Your task to perform on an android device: open app "TextNow: Call + Text Unlimited" (install if not already installed) and go to login screen Image 0: 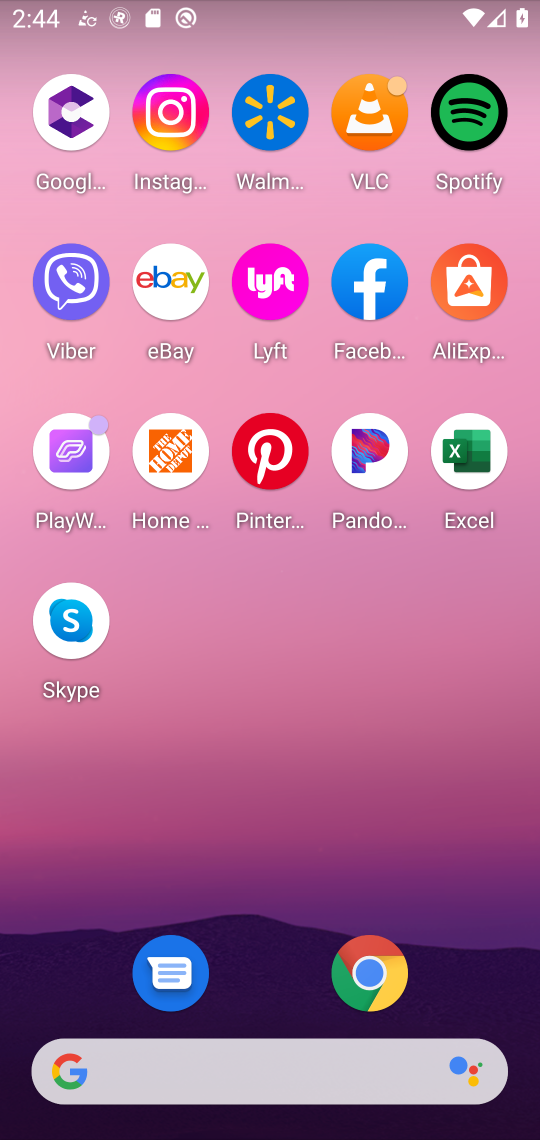
Step 0: press home button
Your task to perform on an android device: open app "TextNow: Call + Text Unlimited" (install if not already installed) and go to login screen Image 1: 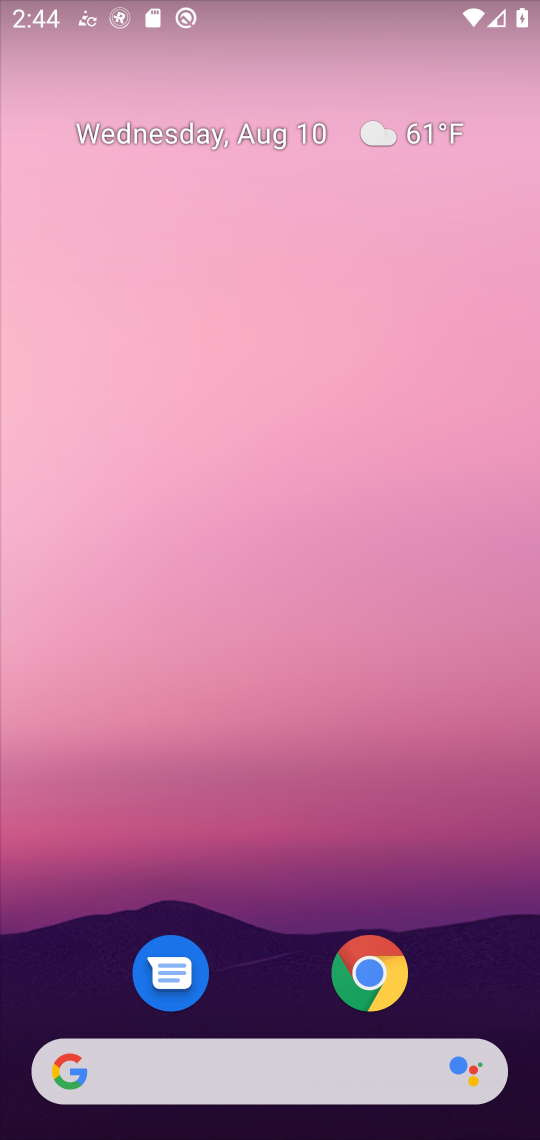
Step 1: drag from (233, 1014) to (243, 458)
Your task to perform on an android device: open app "TextNow: Call + Text Unlimited" (install if not already installed) and go to login screen Image 2: 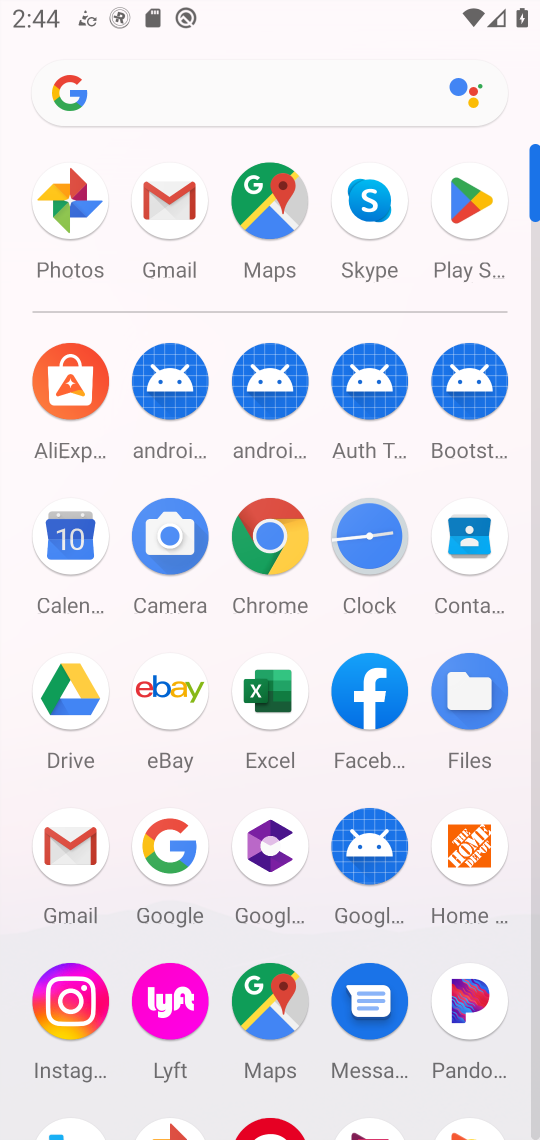
Step 2: click (459, 191)
Your task to perform on an android device: open app "TextNow: Call + Text Unlimited" (install if not already installed) and go to login screen Image 3: 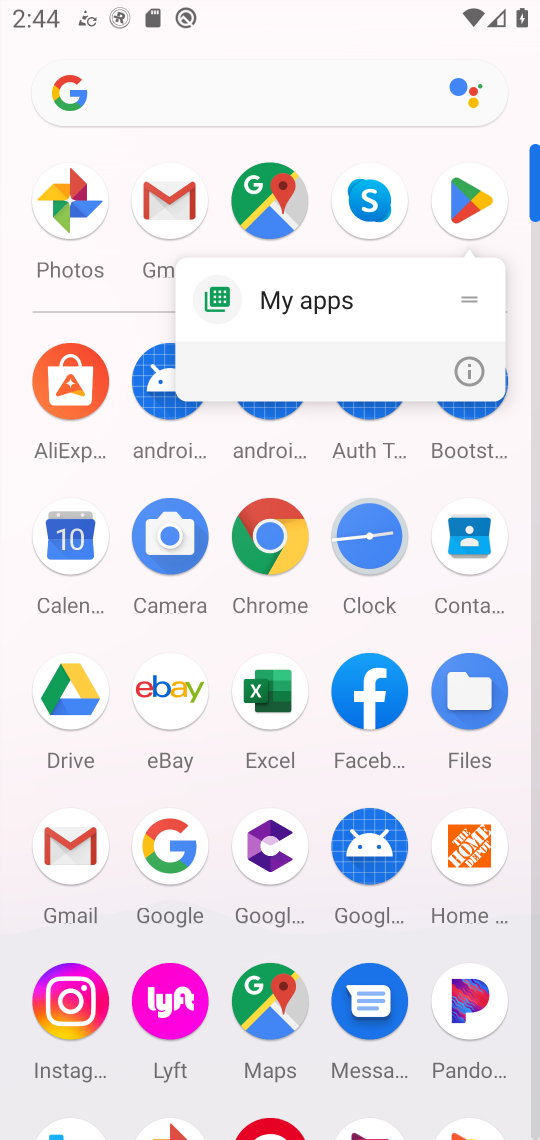
Step 3: click (465, 184)
Your task to perform on an android device: open app "TextNow: Call + Text Unlimited" (install if not already installed) and go to login screen Image 4: 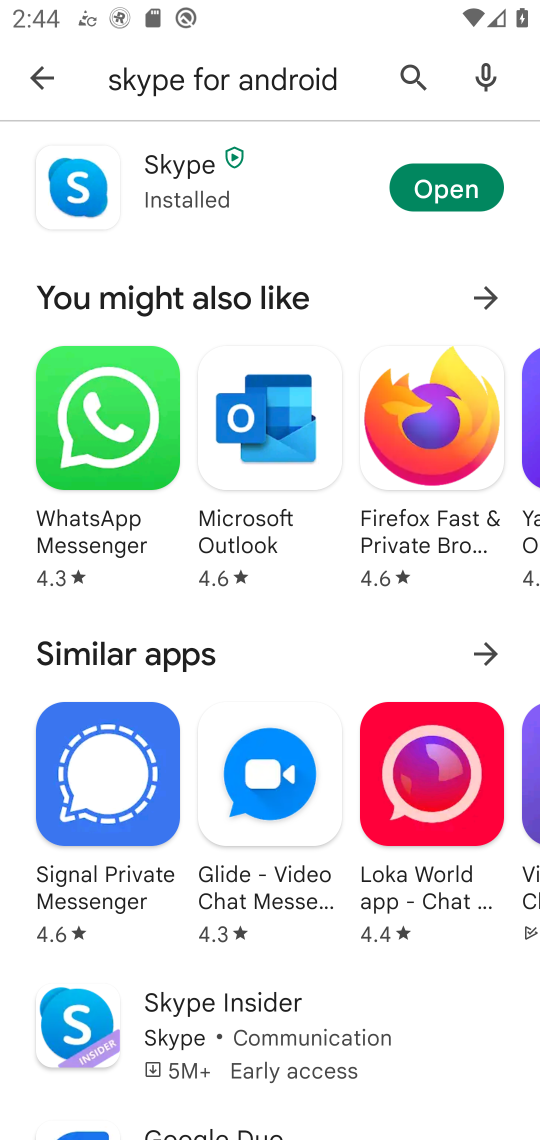
Step 4: click (49, 57)
Your task to perform on an android device: open app "TextNow: Call + Text Unlimited" (install if not already installed) and go to login screen Image 5: 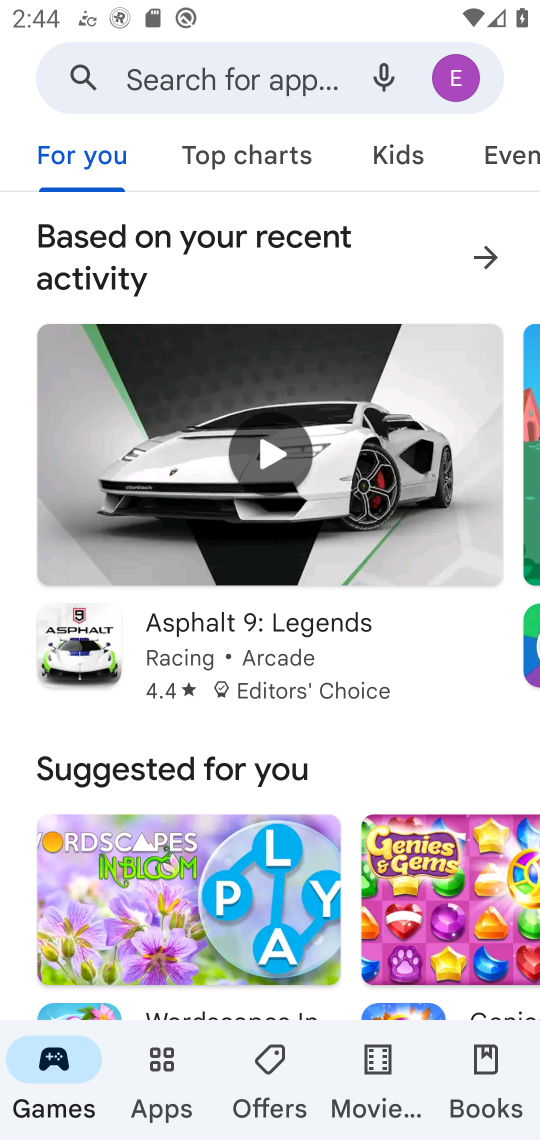
Step 5: click (234, 73)
Your task to perform on an android device: open app "TextNow: Call + Text Unlimited" (install if not already installed) and go to login screen Image 6: 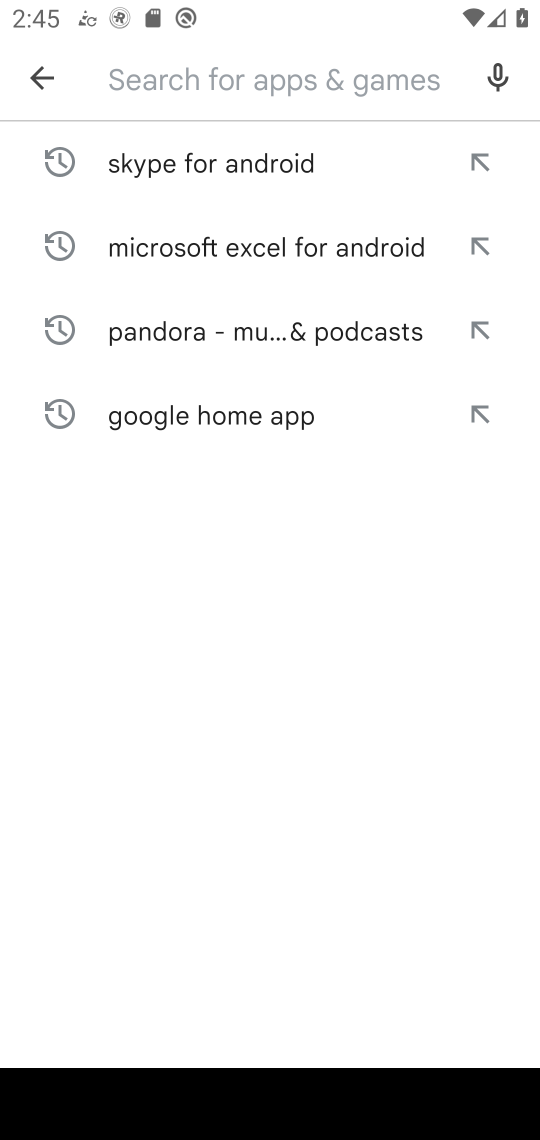
Step 6: type "TextNow: Call  "
Your task to perform on an android device: open app "TextNow: Call + Text Unlimited" (install if not already installed) and go to login screen Image 7: 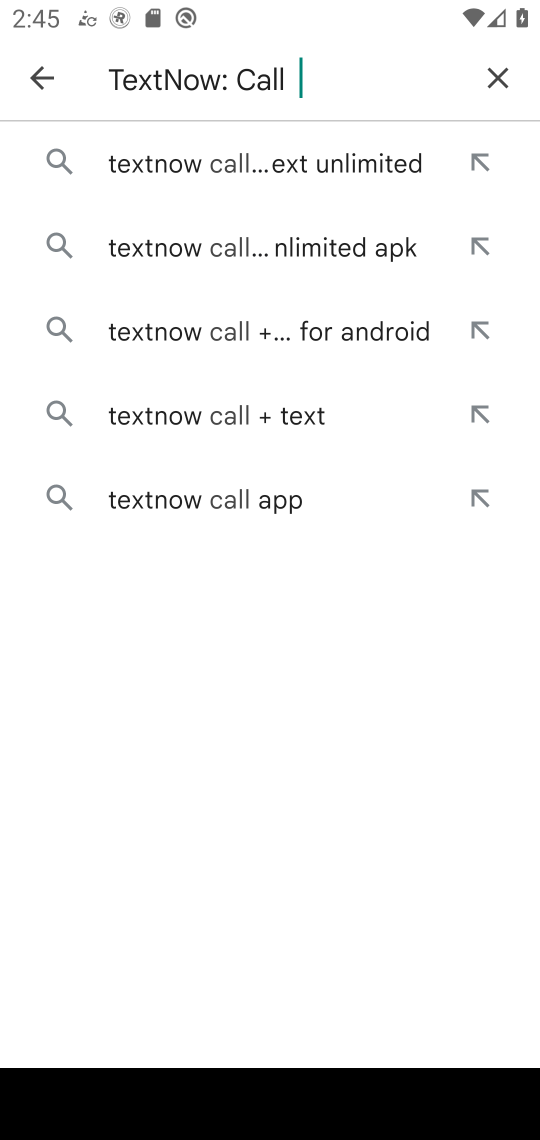
Step 7: click (234, 182)
Your task to perform on an android device: open app "TextNow: Call + Text Unlimited" (install if not already installed) and go to login screen Image 8: 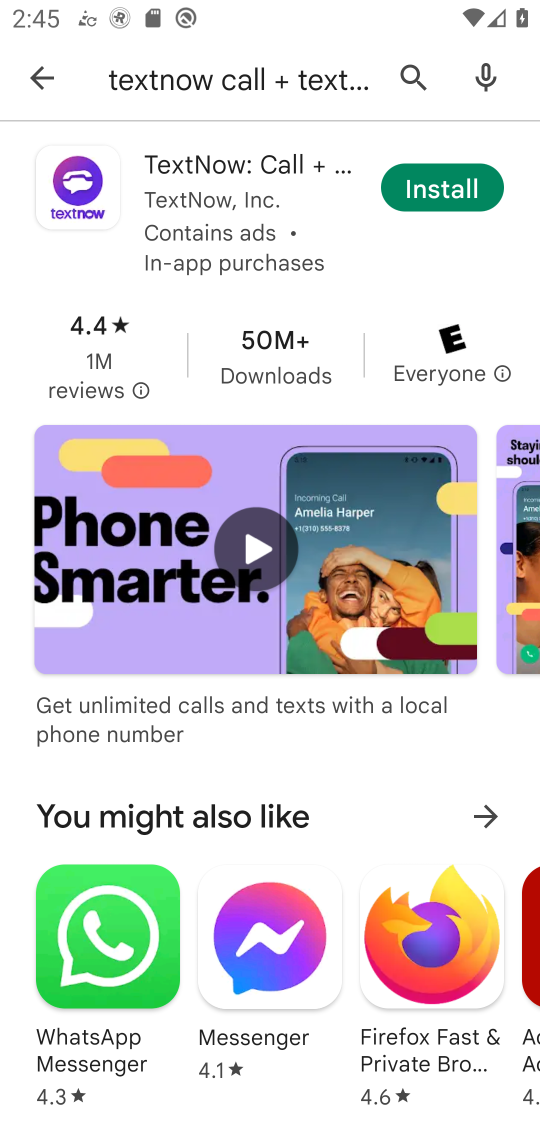
Step 8: click (462, 180)
Your task to perform on an android device: open app "TextNow: Call + Text Unlimited" (install if not already installed) and go to login screen Image 9: 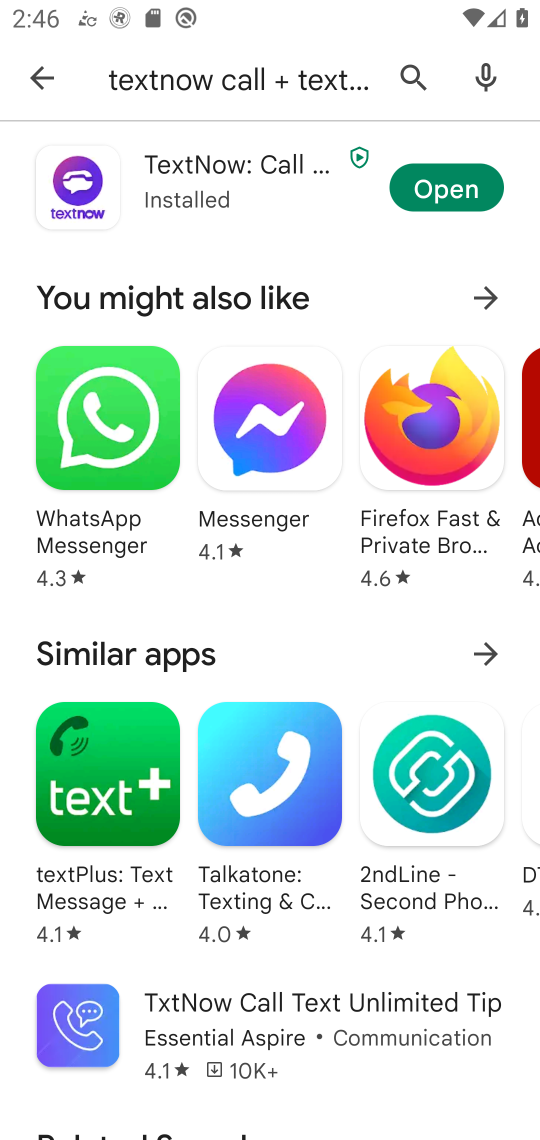
Step 9: click (442, 166)
Your task to perform on an android device: open app "TextNow: Call + Text Unlimited" (install if not already installed) and go to login screen Image 10: 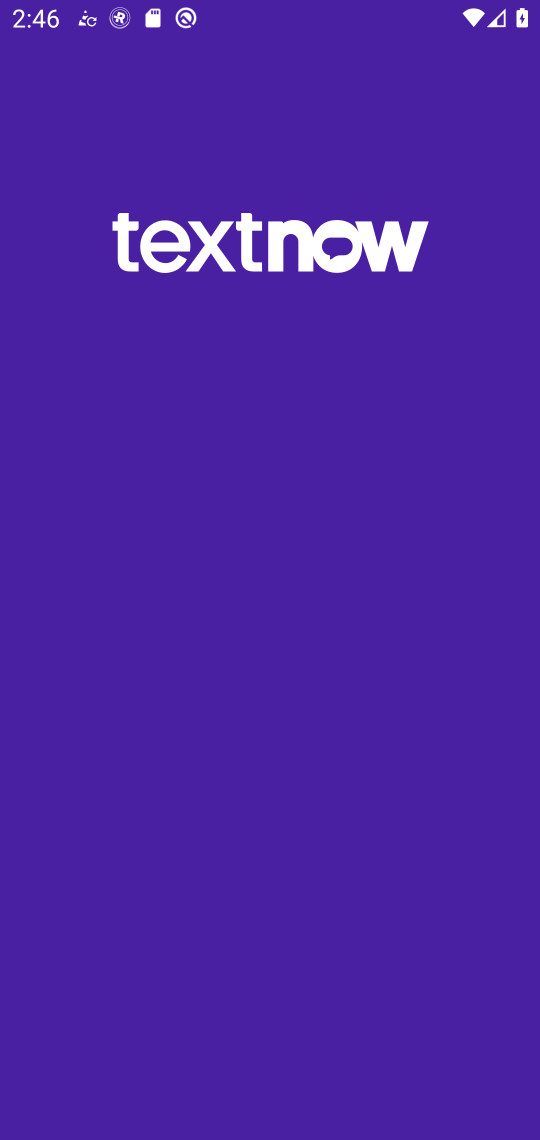
Step 10: task complete